Your task to perform on an android device: change timer sound Image 0: 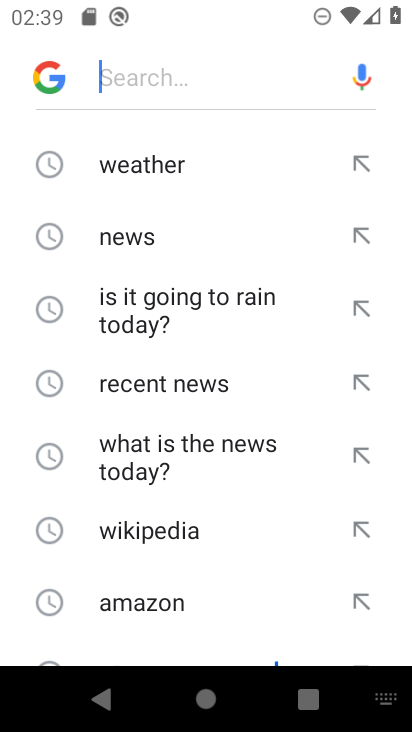
Step 0: press home button
Your task to perform on an android device: change timer sound Image 1: 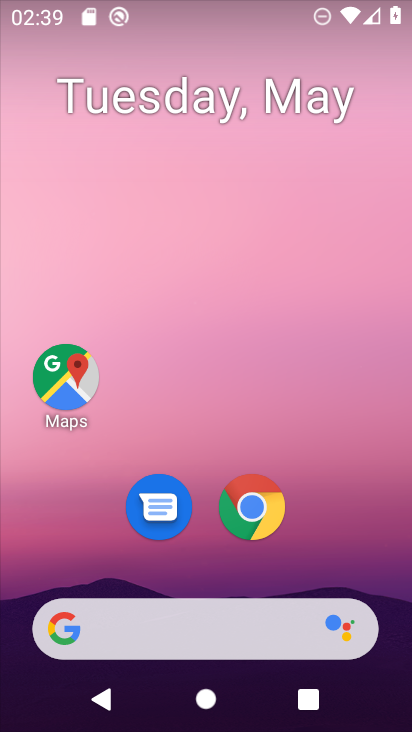
Step 1: drag from (217, 571) to (259, 195)
Your task to perform on an android device: change timer sound Image 2: 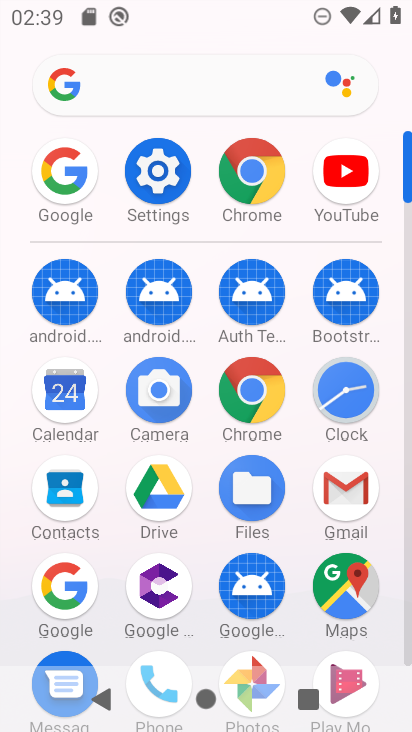
Step 2: click (357, 387)
Your task to perform on an android device: change timer sound Image 3: 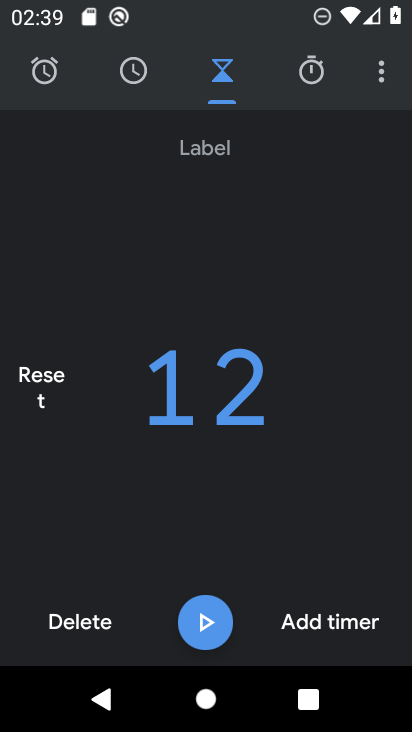
Step 3: click (381, 75)
Your task to perform on an android device: change timer sound Image 4: 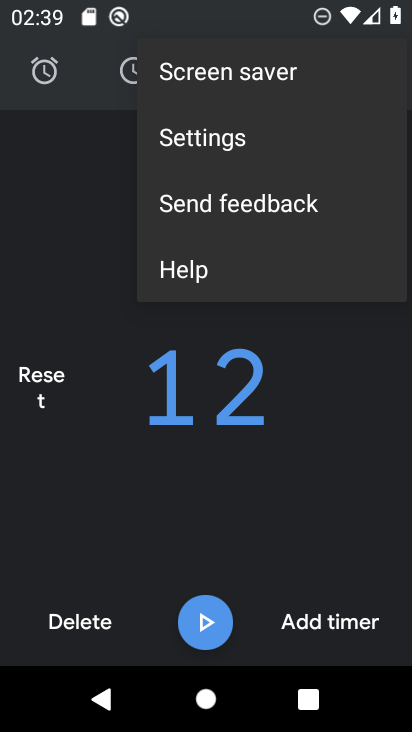
Step 4: click (266, 139)
Your task to perform on an android device: change timer sound Image 5: 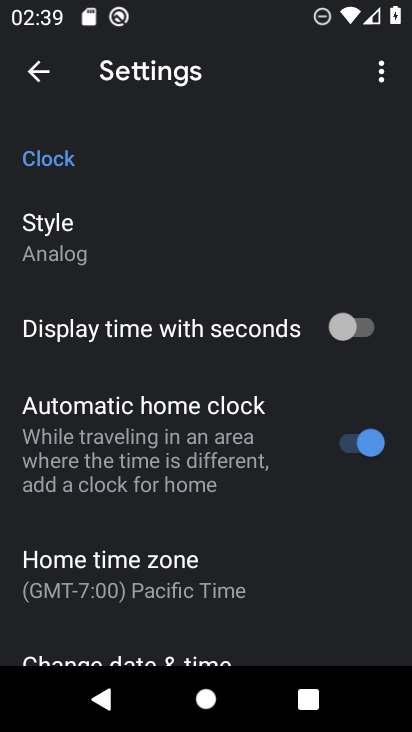
Step 5: drag from (222, 579) to (232, 358)
Your task to perform on an android device: change timer sound Image 6: 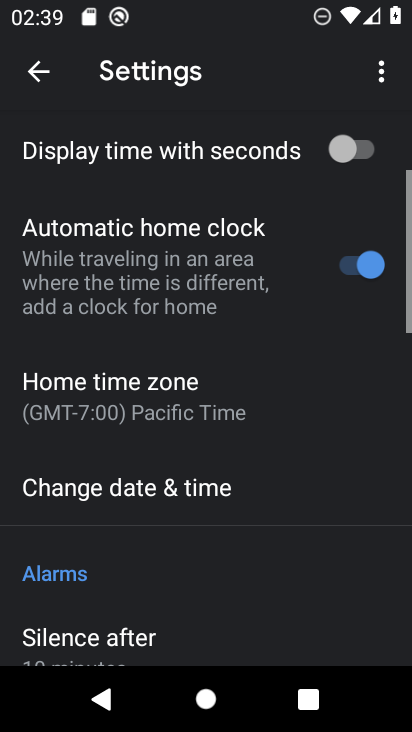
Step 6: drag from (240, 557) to (198, 235)
Your task to perform on an android device: change timer sound Image 7: 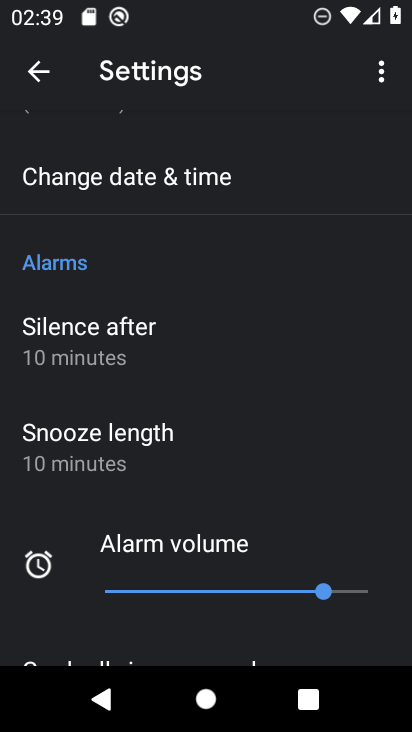
Step 7: drag from (196, 495) to (184, 268)
Your task to perform on an android device: change timer sound Image 8: 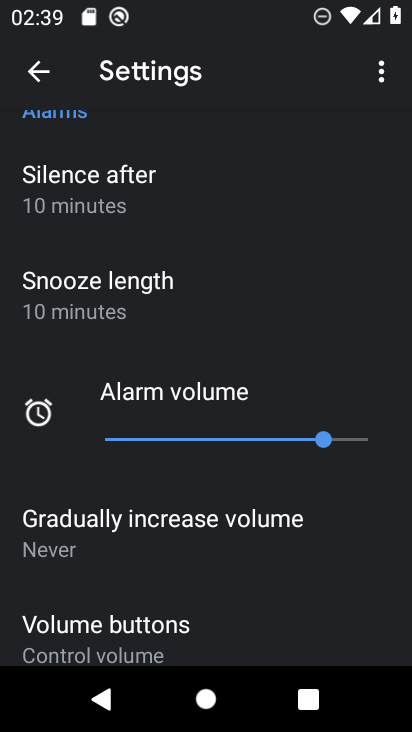
Step 8: drag from (181, 534) to (162, 276)
Your task to perform on an android device: change timer sound Image 9: 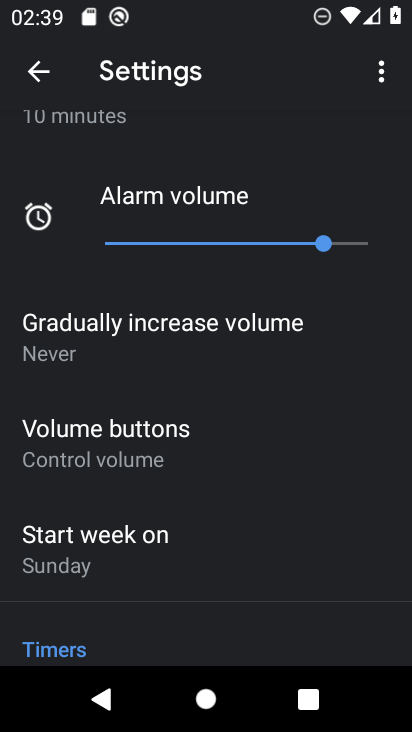
Step 9: drag from (186, 551) to (208, 322)
Your task to perform on an android device: change timer sound Image 10: 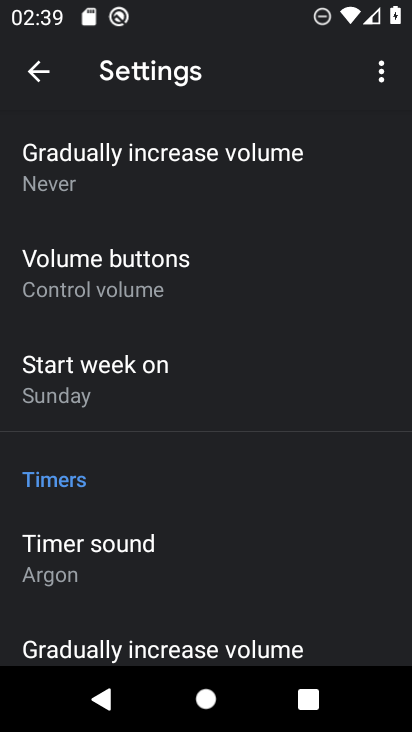
Step 10: click (164, 540)
Your task to perform on an android device: change timer sound Image 11: 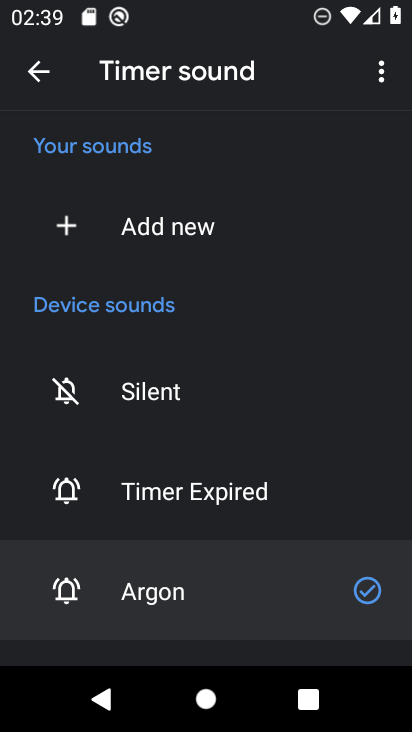
Step 11: click (174, 454)
Your task to perform on an android device: change timer sound Image 12: 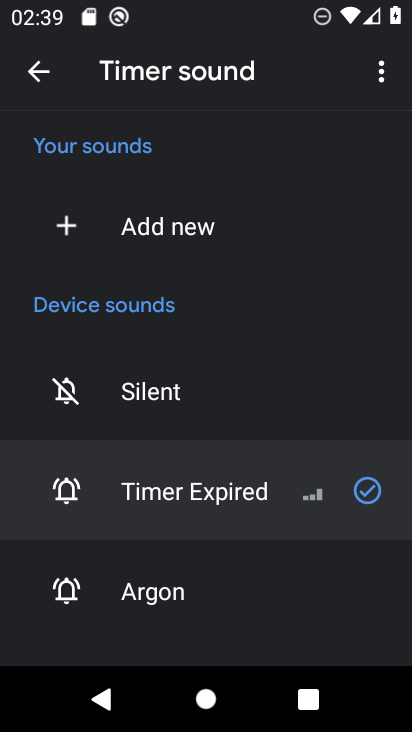
Step 12: task complete